Your task to perform on an android device: Search for a custom made wallet on Etsy Image 0: 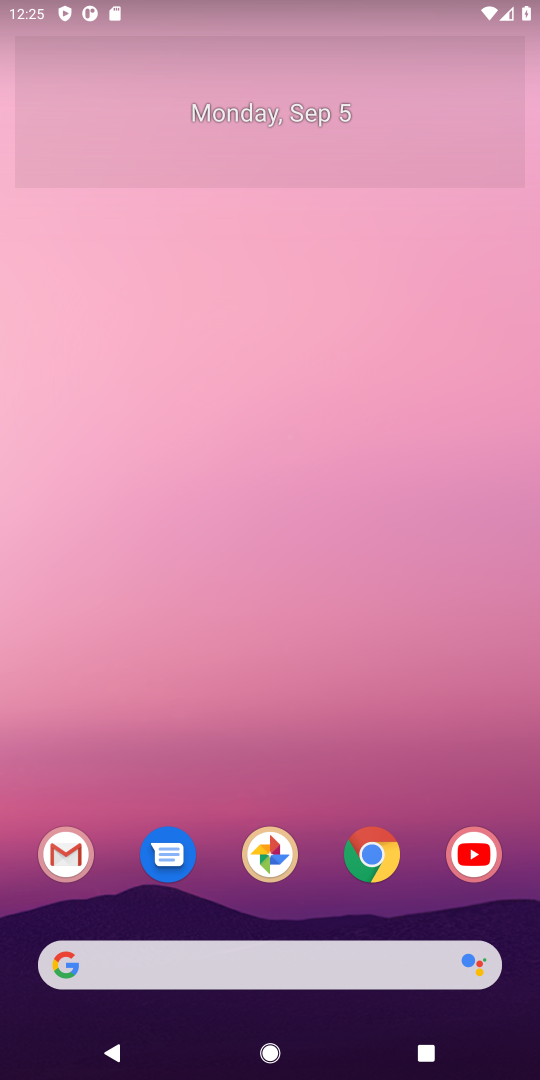
Step 0: click (375, 856)
Your task to perform on an android device: Search for a custom made wallet on Etsy Image 1: 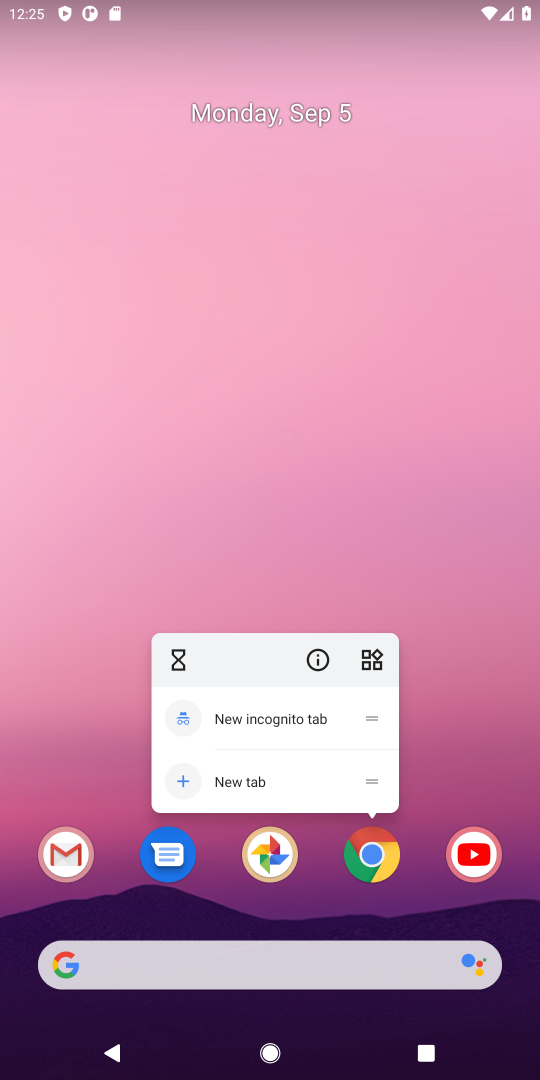
Step 1: click (375, 857)
Your task to perform on an android device: Search for a custom made wallet on Etsy Image 2: 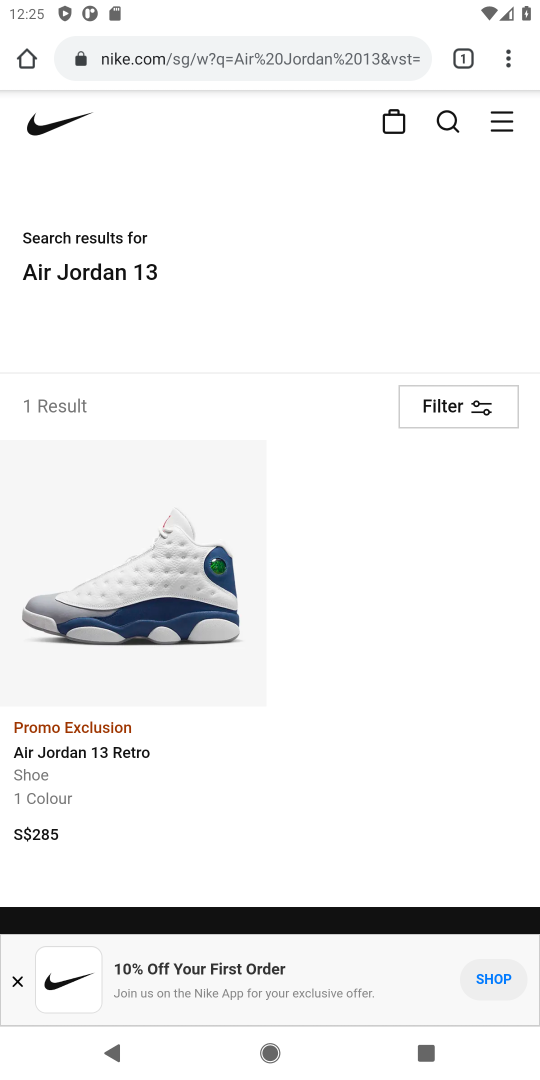
Step 2: click (328, 59)
Your task to perform on an android device: Search for a custom made wallet on Etsy Image 3: 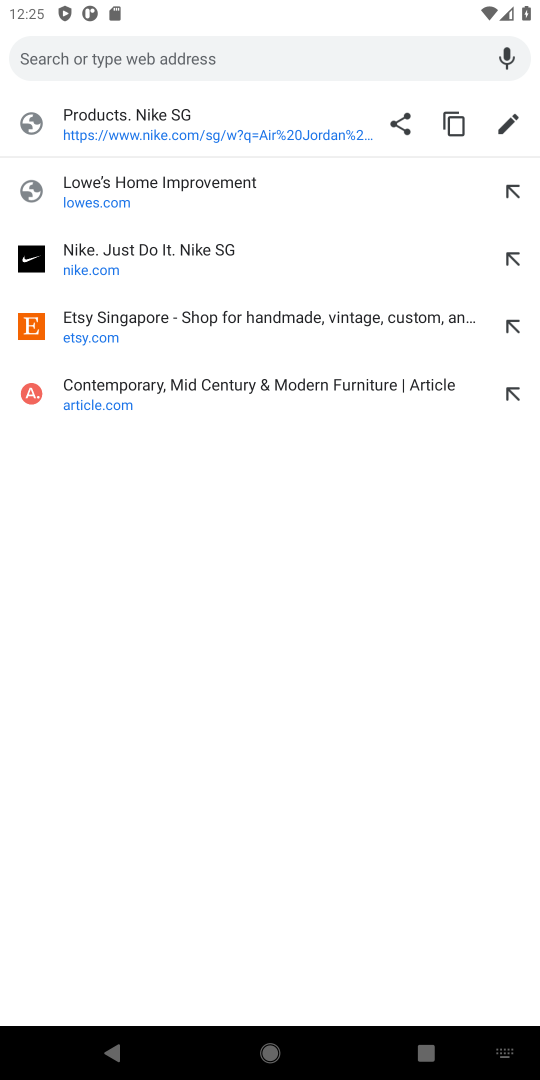
Step 3: type "Etsy"
Your task to perform on an android device: Search for a custom made wallet on Etsy Image 4: 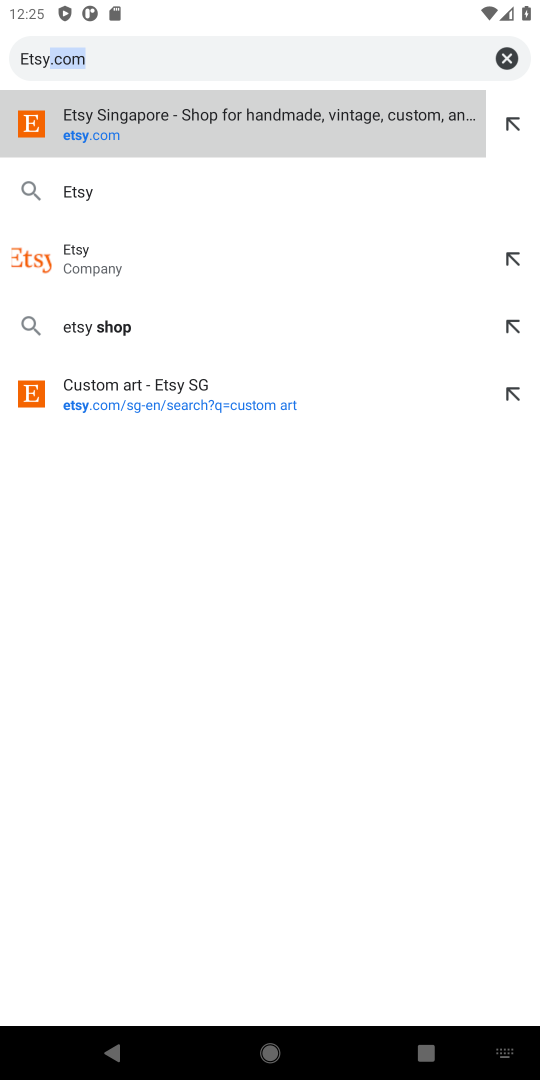
Step 4: press enter
Your task to perform on an android device: Search for a custom made wallet on Etsy Image 5: 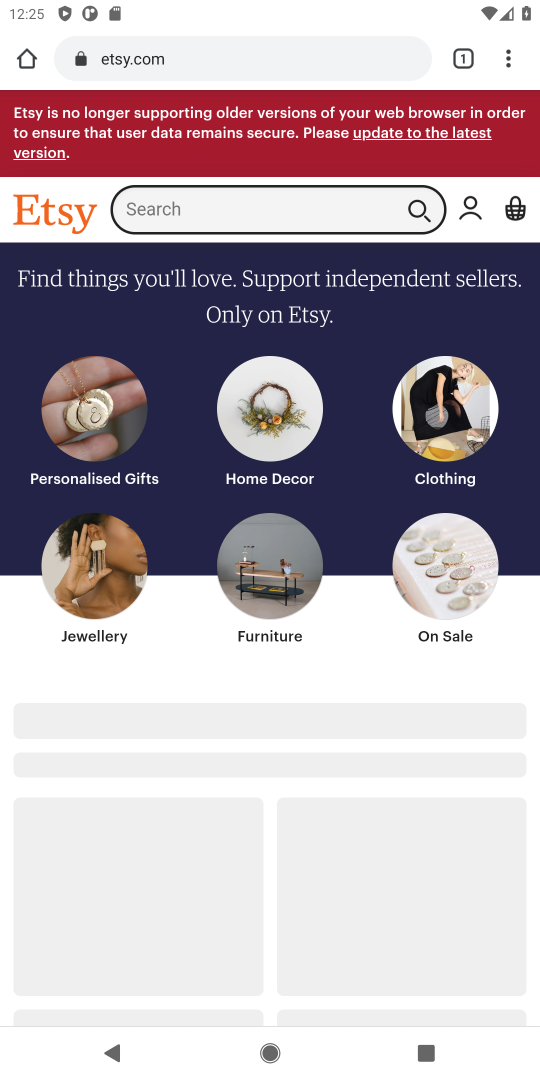
Step 5: click (304, 198)
Your task to perform on an android device: Search for a custom made wallet on Etsy Image 6: 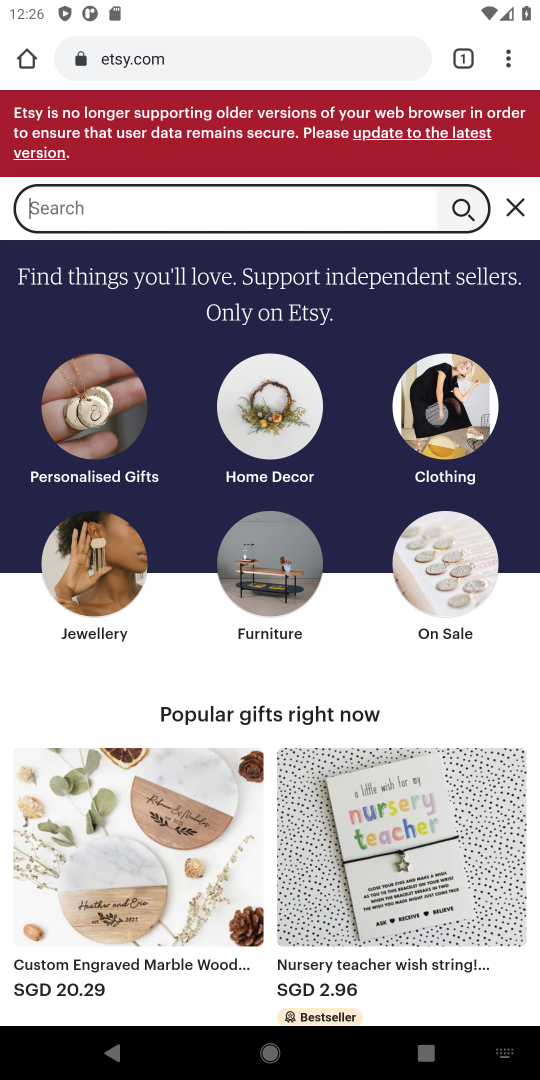
Step 6: type "custom made wallet"
Your task to perform on an android device: Search for a custom made wallet on Etsy Image 7: 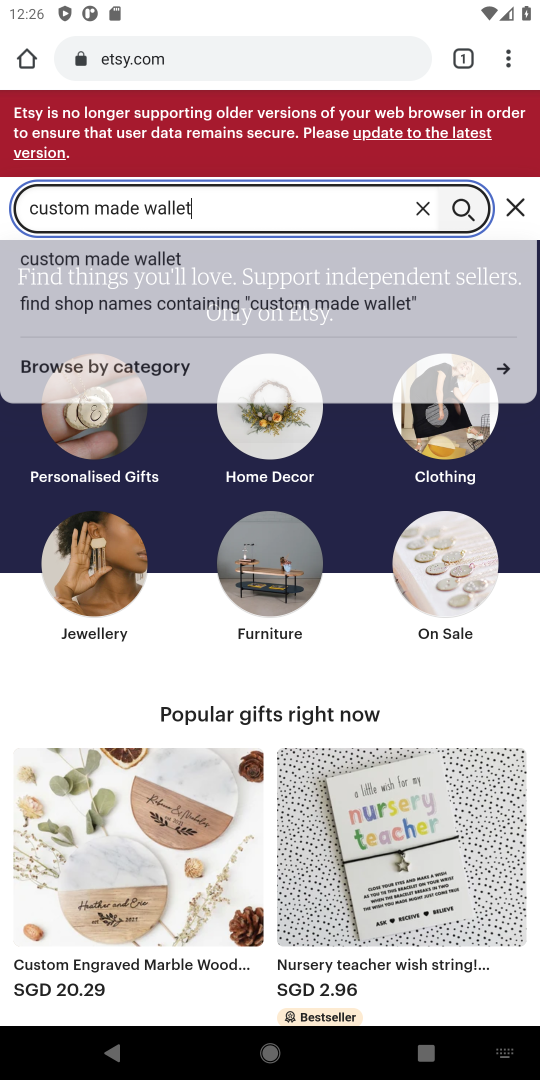
Step 7: press enter
Your task to perform on an android device: Search for a custom made wallet on Etsy Image 8: 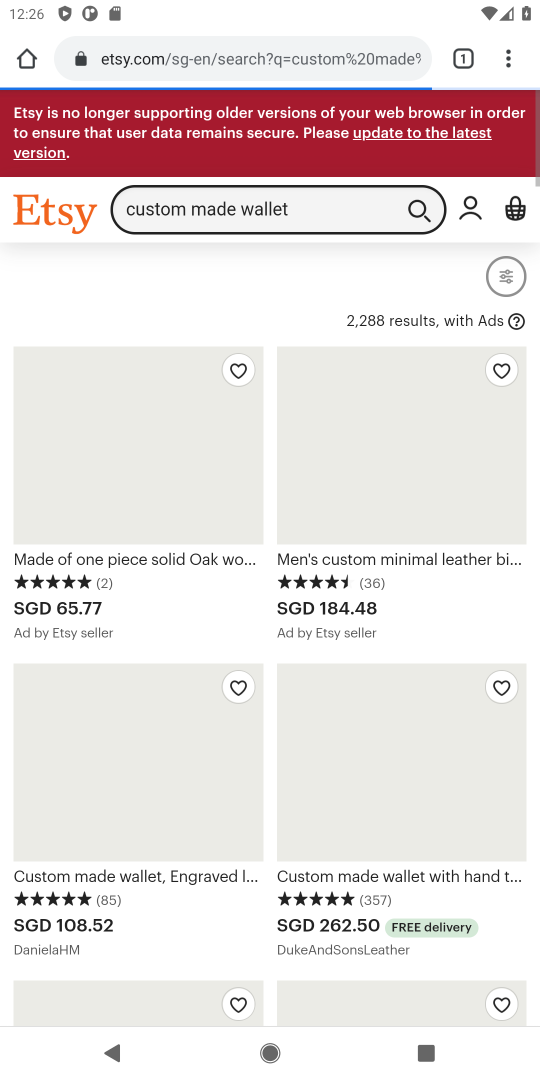
Step 8: click (459, 209)
Your task to perform on an android device: Search for a custom made wallet on Etsy Image 9: 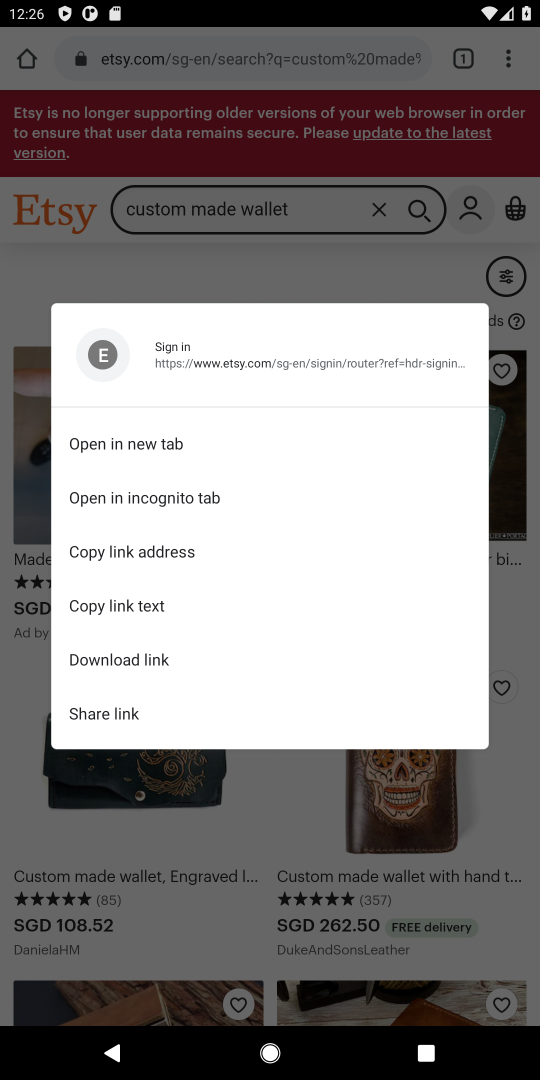
Step 9: click (29, 270)
Your task to perform on an android device: Search for a custom made wallet on Etsy Image 10: 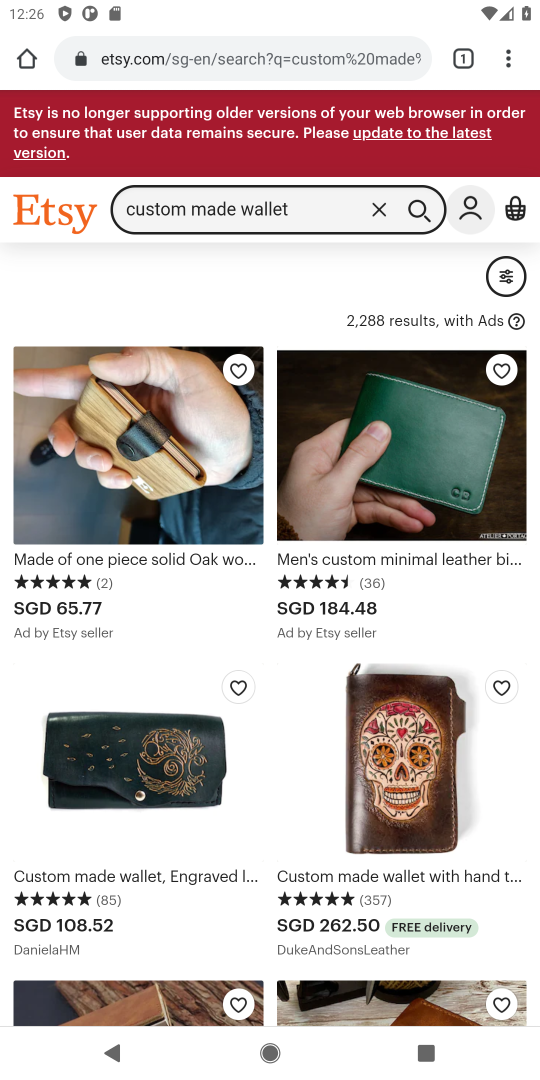
Step 10: task complete